Your task to perform on an android device: Go to display settings Image 0: 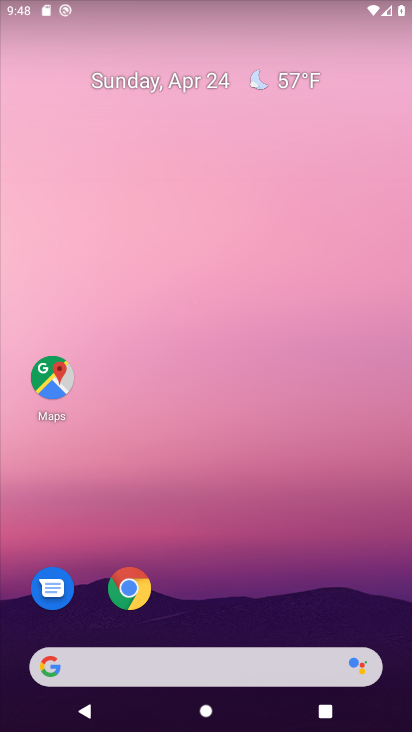
Step 0: drag from (264, 512) to (264, 116)
Your task to perform on an android device: Go to display settings Image 1: 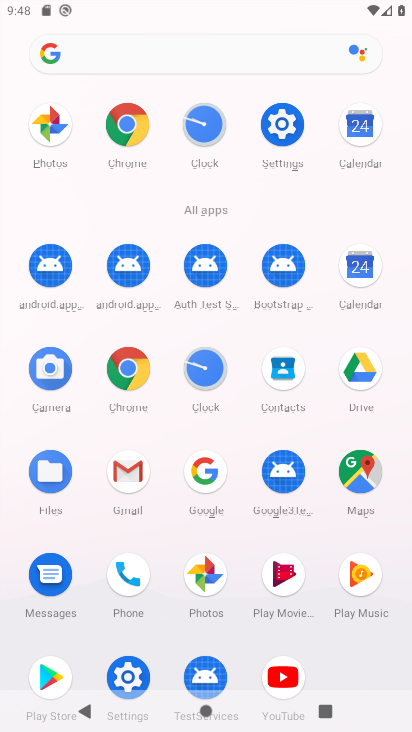
Step 1: click (282, 118)
Your task to perform on an android device: Go to display settings Image 2: 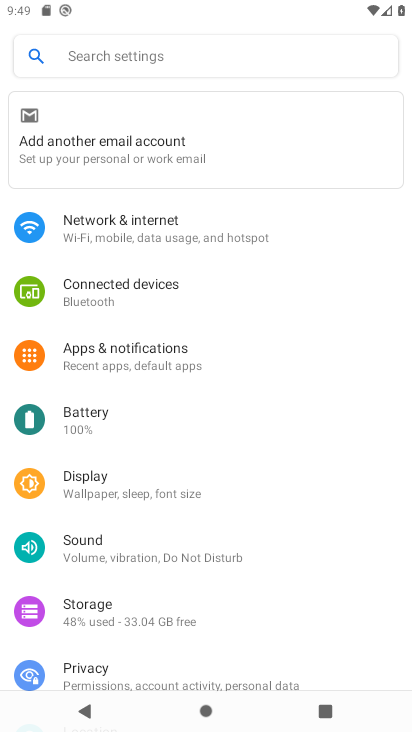
Step 2: click (131, 485)
Your task to perform on an android device: Go to display settings Image 3: 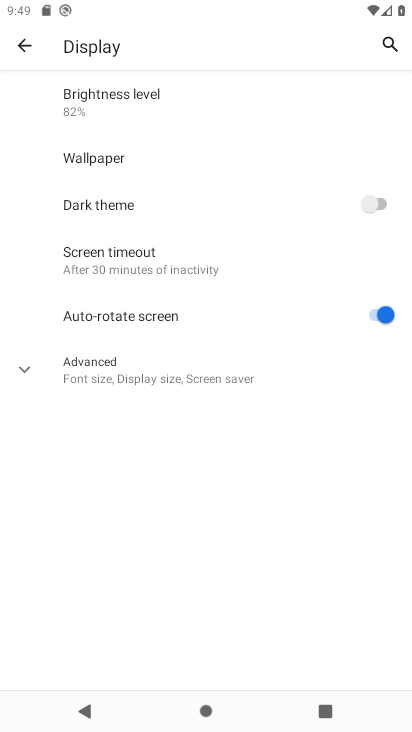
Step 3: click (190, 363)
Your task to perform on an android device: Go to display settings Image 4: 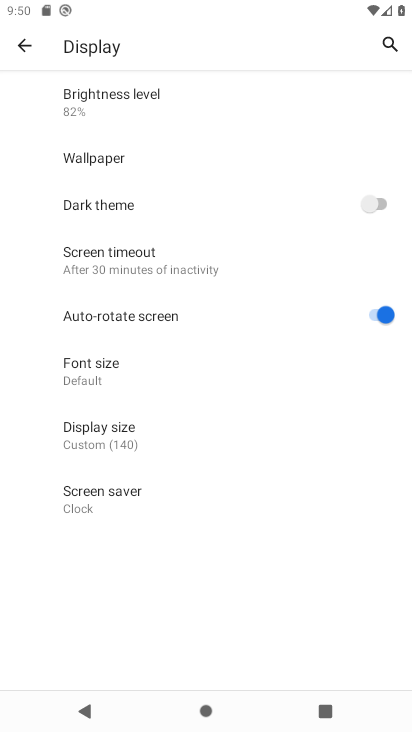
Step 4: task complete